Your task to perform on an android device: manage bookmarks in the chrome app Image 0: 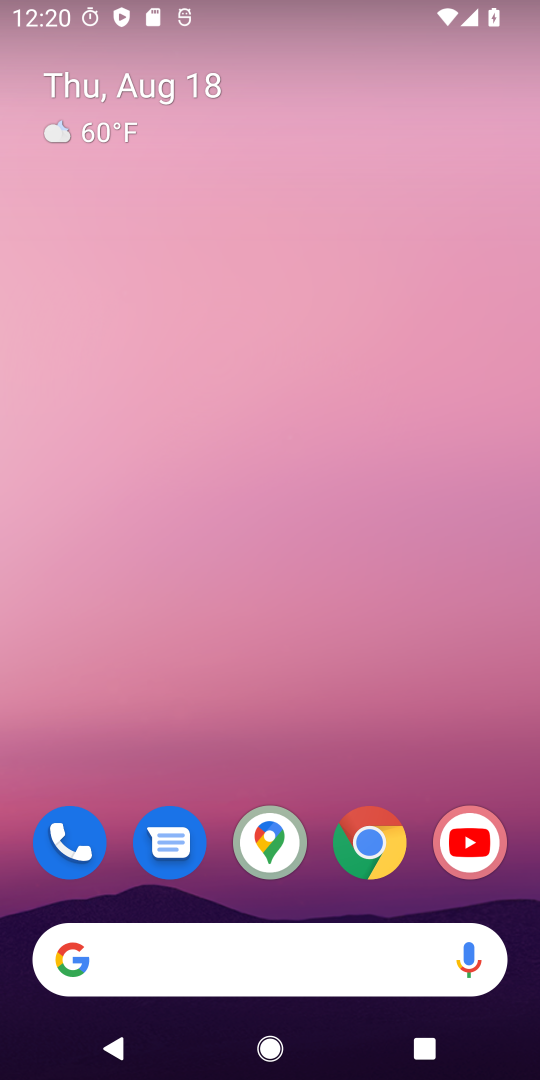
Step 0: click (379, 852)
Your task to perform on an android device: manage bookmarks in the chrome app Image 1: 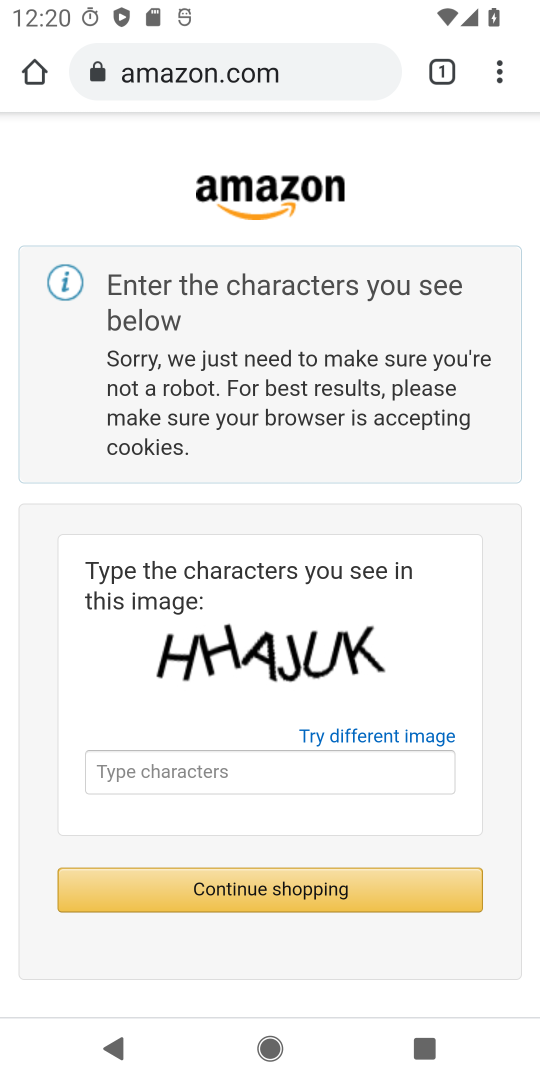
Step 1: click (508, 62)
Your task to perform on an android device: manage bookmarks in the chrome app Image 2: 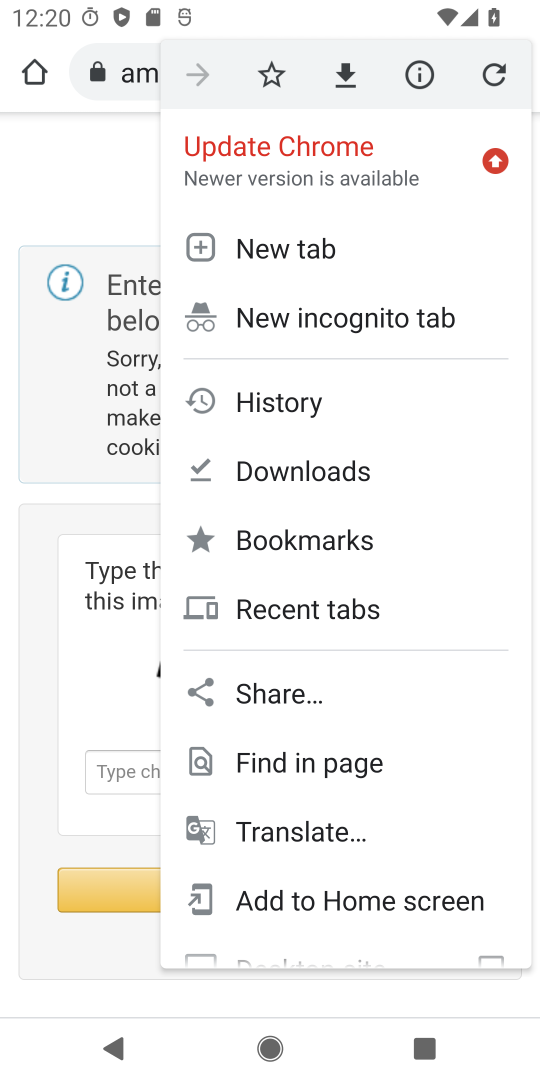
Step 2: drag from (283, 677) to (281, 151)
Your task to perform on an android device: manage bookmarks in the chrome app Image 3: 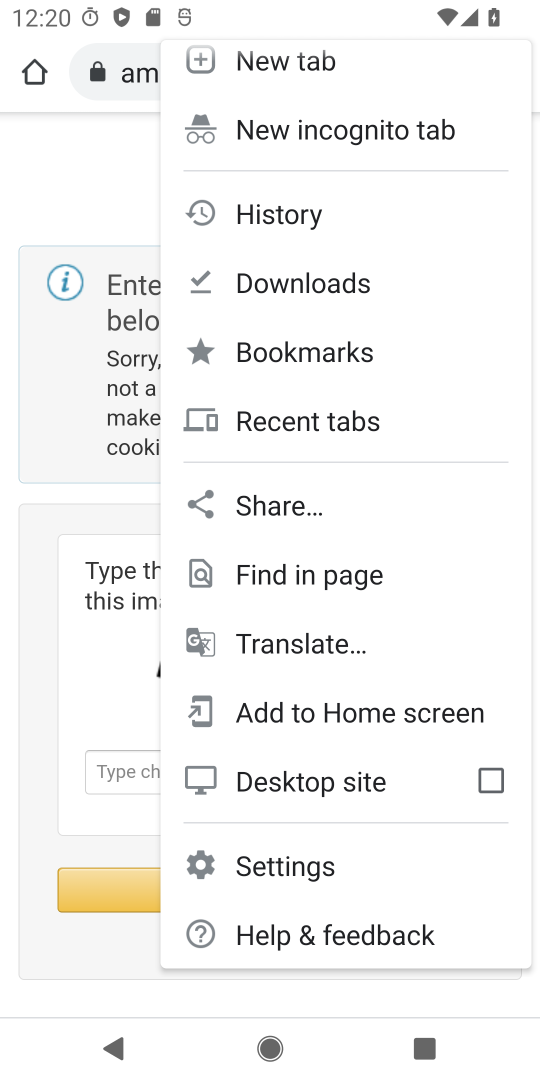
Step 3: click (252, 532)
Your task to perform on an android device: manage bookmarks in the chrome app Image 4: 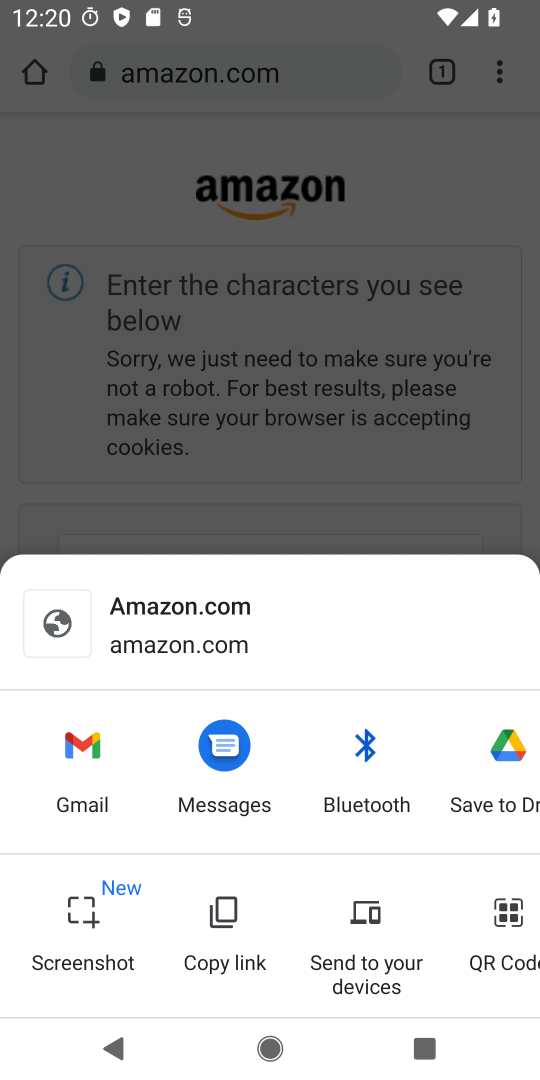
Step 4: click (284, 493)
Your task to perform on an android device: manage bookmarks in the chrome app Image 5: 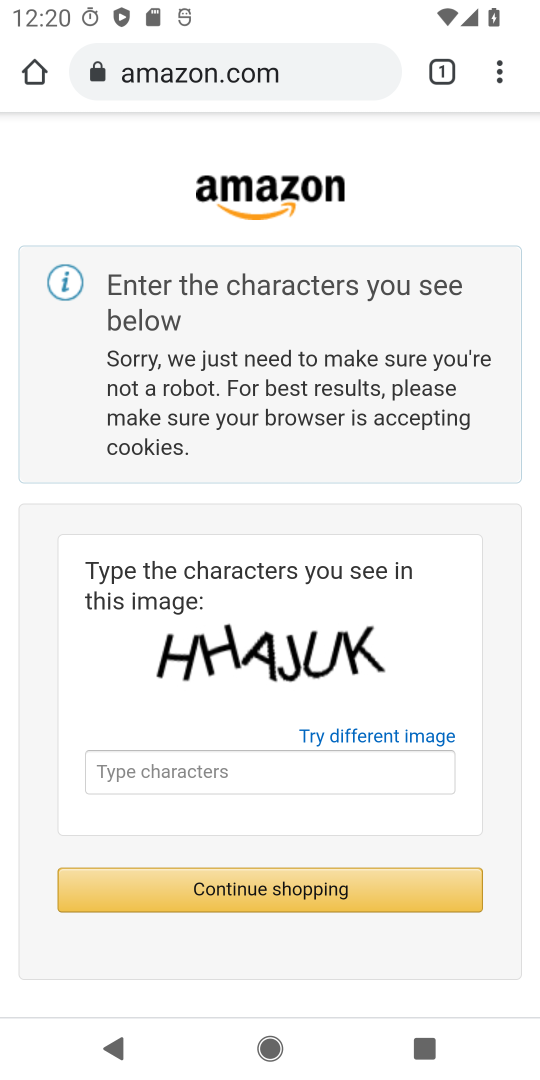
Step 5: click (513, 62)
Your task to perform on an android device: manage bookmarks in the chrome app Image 6: 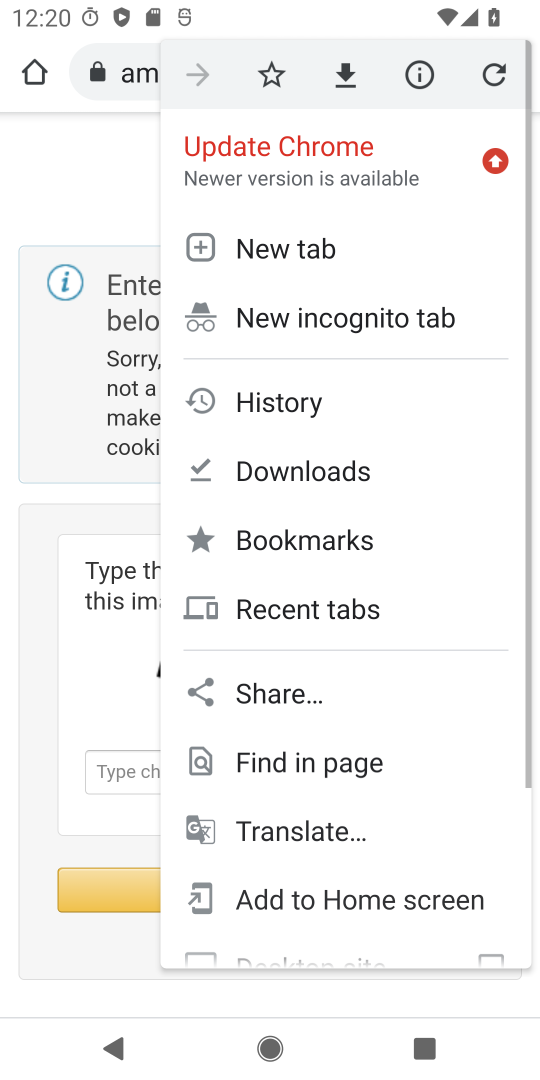
Step 6: click (513, 62)
Your task to perform on an android device: manage bookmarks in the chrome app Image 7: 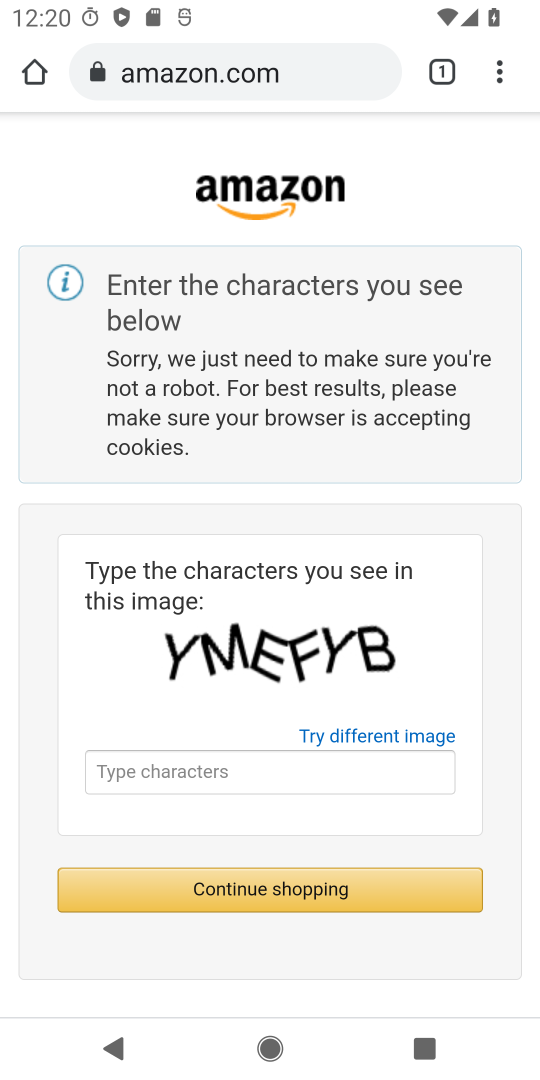
Step 7: click (514, 60)
Your task to perform on an android device: manage bookmarks in the chrome app Image 8: 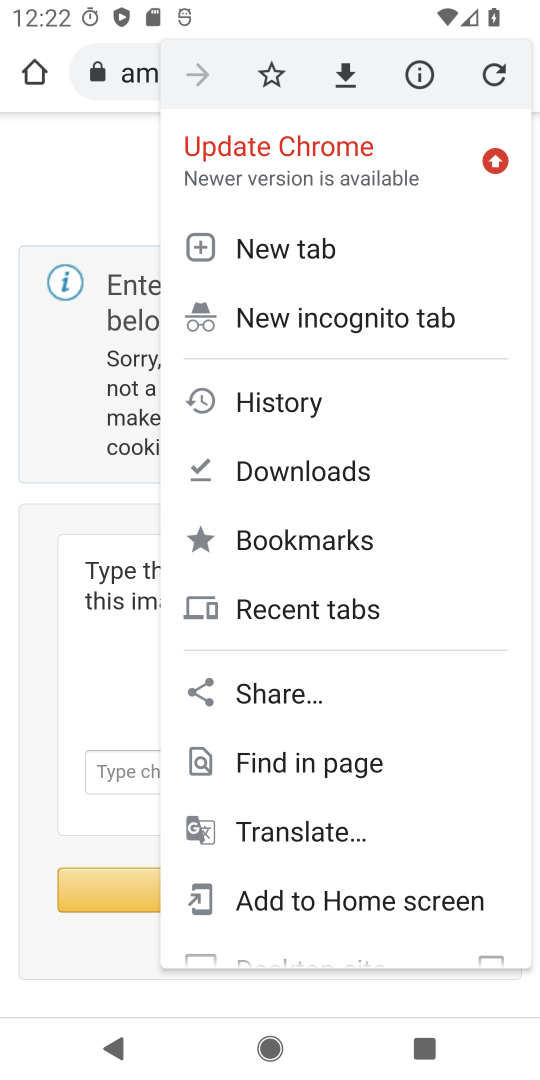
Step 8: click (381, 540)
Your task to perform on an android device: manage bookmarks in the chrome app Image 9: 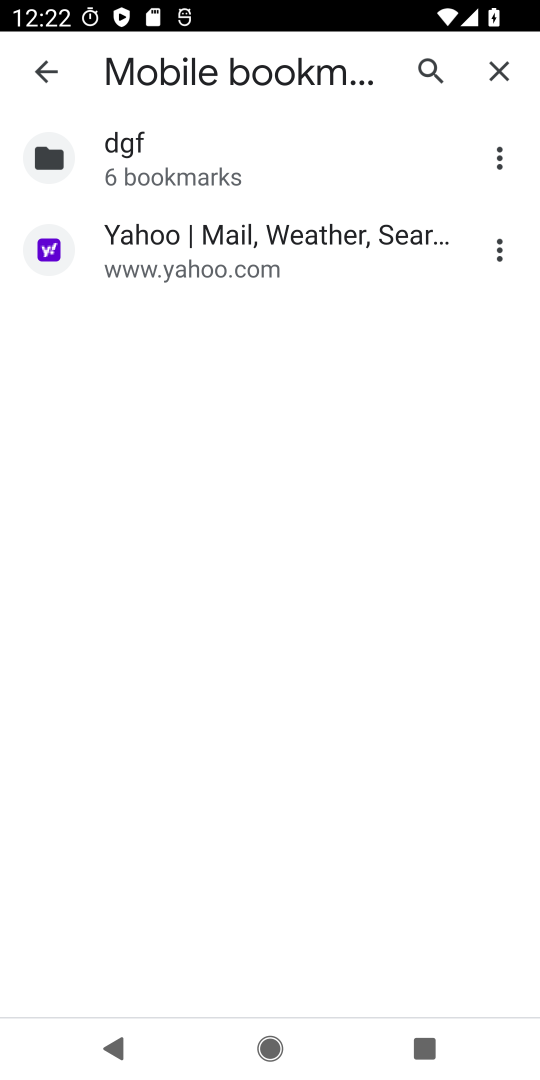
Step 9: click (172, 170)
Your task to perform on an android device: manage bookmarks in the chrome app Image 10: 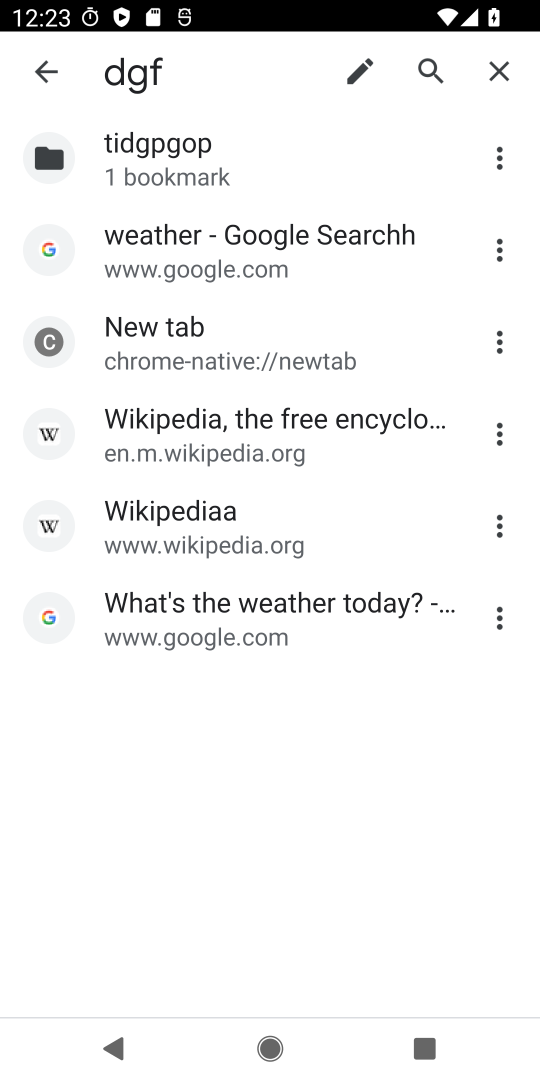
Step 10: click (506, 170)
Your task to perform on an android device: manage bookmarks in the chrome app Image 11: 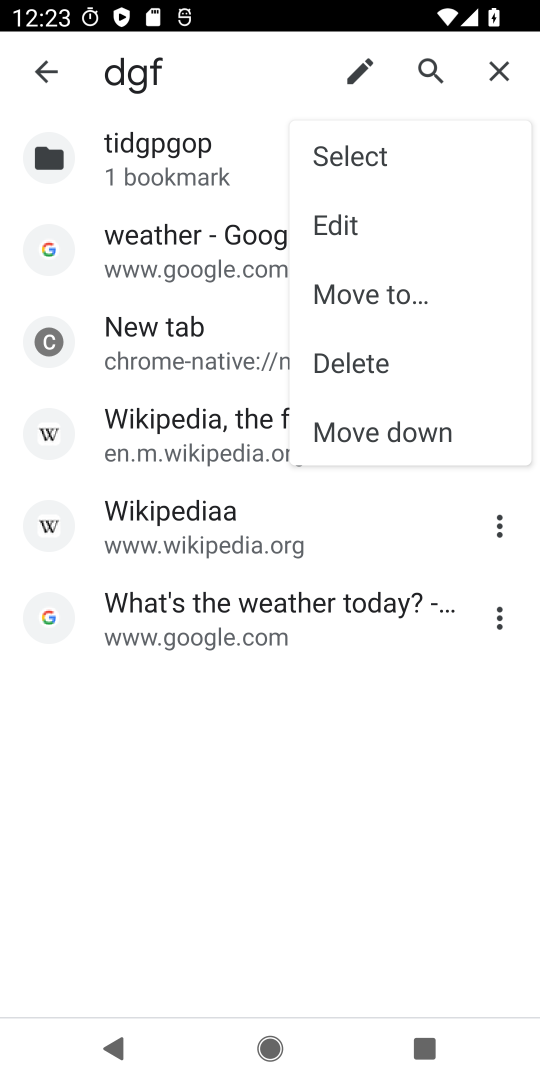
Step 11: click (408, 374)
Your task to perform on an android device: manage bookmarks in the chrome app Image 12: 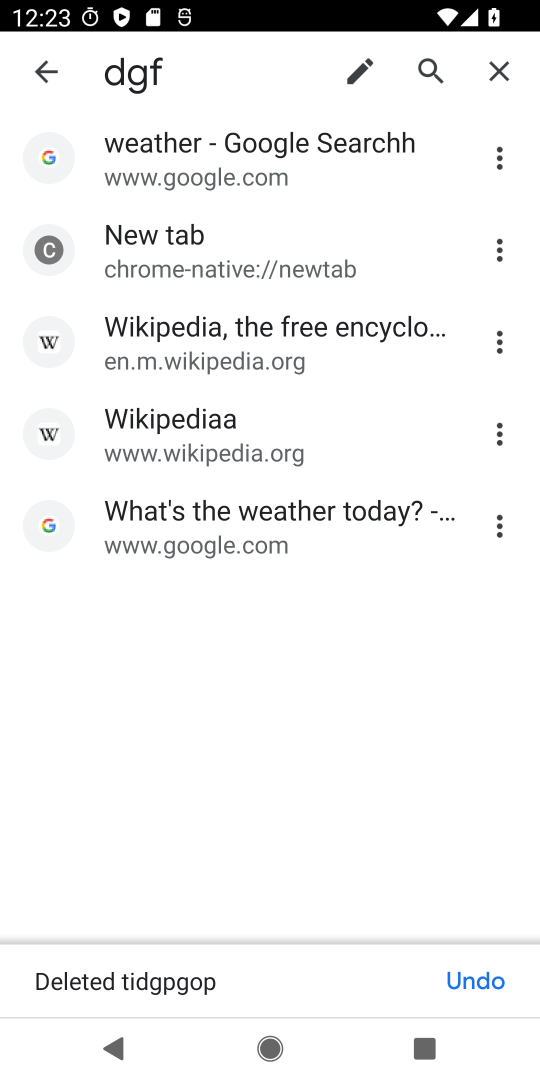
Step 12: task complete